Your task to perform on an android device: When is my next meeting? Image 0: 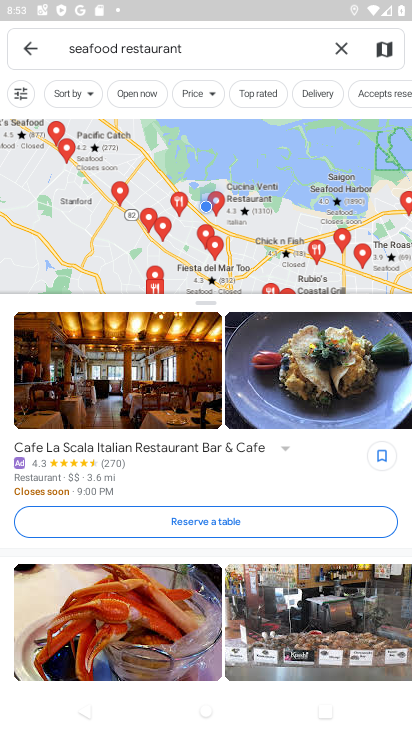
Step 0: press home button
Your task to perform on an android device: When is my next meeting? Image 1: 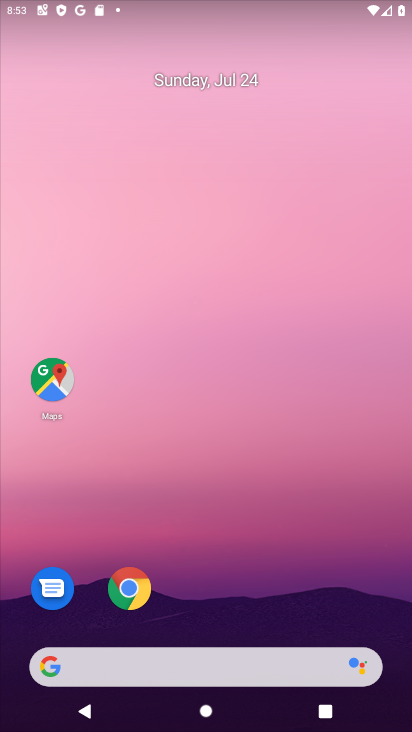
Step 1: drag from (200, 625) to (163, 163)
Your task to perform on an android device: When is my next meeting? Image 2: 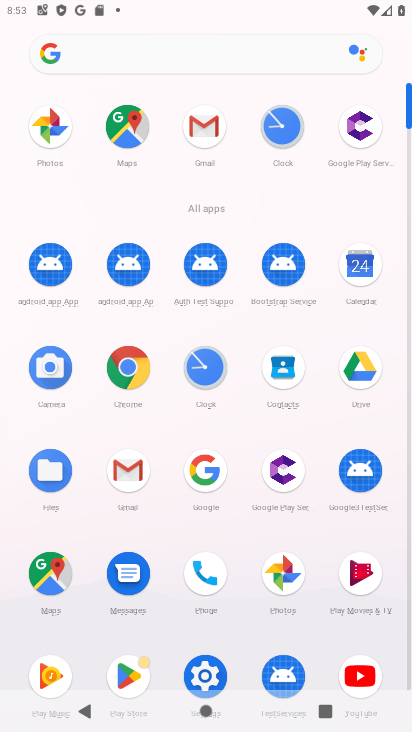
Step 2: click (346, 280)
Your task to perform on an android device: When is my next meeting? Image 3: 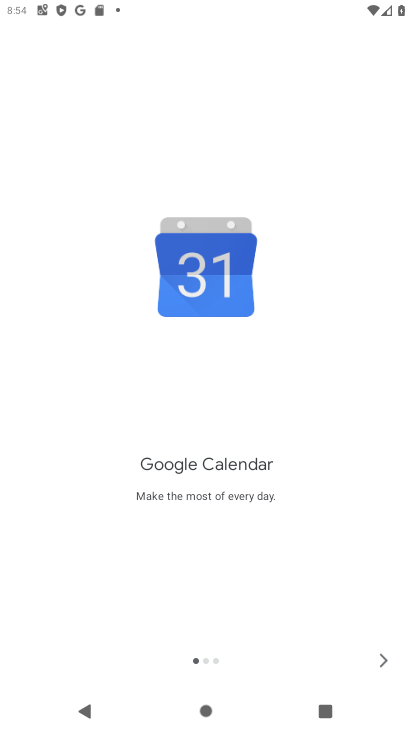
Step 3: click (387, 660)
Your task to perform on an android device: When is my next meeting? Image 4: 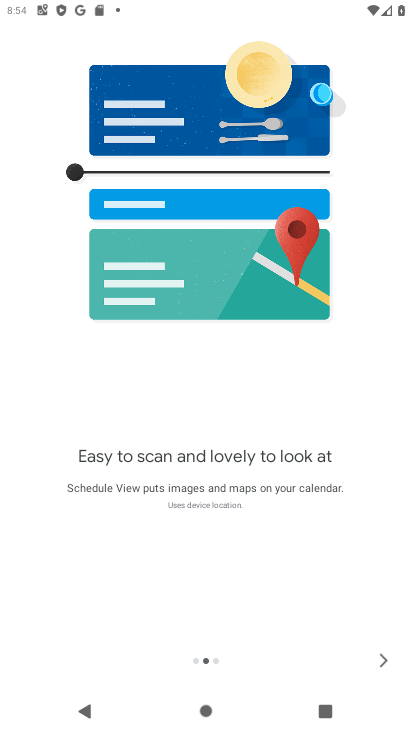
Step 4: click (387, 660)
Your task to perform on an android device: When is my next meeting? Image 5: 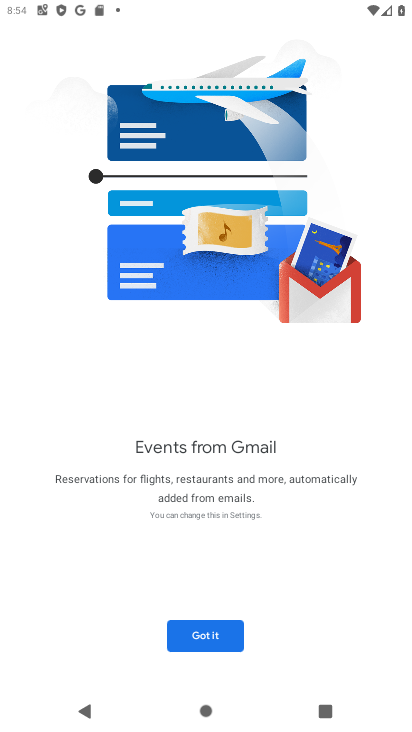
Step 5: click (212, 639)
Your task to perform on an android device: When is my next meeting? Image 6: 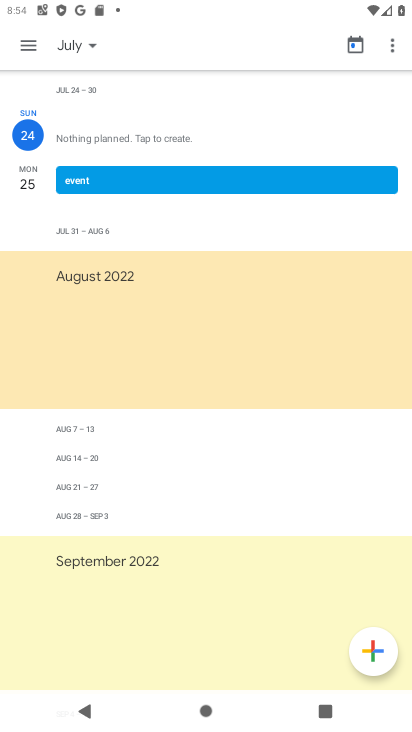
Step 6: click (24, 49)
Your task to perform on an android device: When is my next meeting? Image 7: 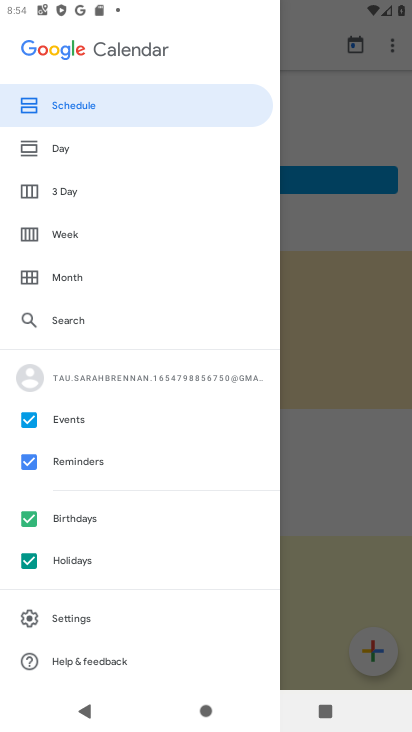
Step 7: click (64, 106)
Your task to perform on an android device: When is my next meeting? Image 8: 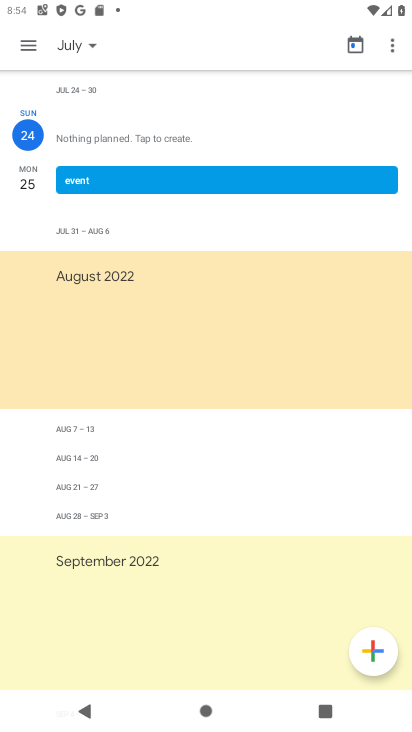
Step 8: task complete